Your task to perform on an android device: turn on the 12-hour format for clock Image 0: 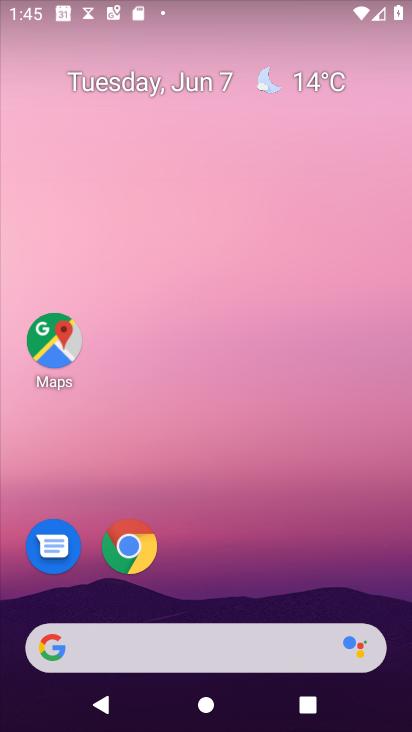
Step 0: drag from (290, 561) to (318, 85)
Your task to perform on an android device: turn on the 12-hour format for clock Image 1: 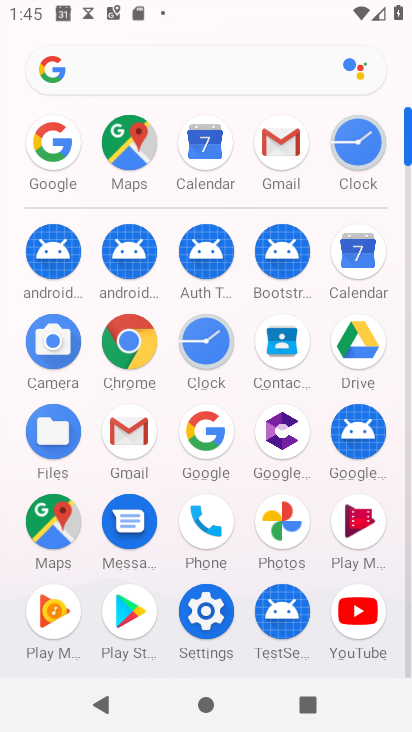
Step 1: click (349, 148)
Your task to perform on an android device: turn on the 12-hour format for clock Image 2: 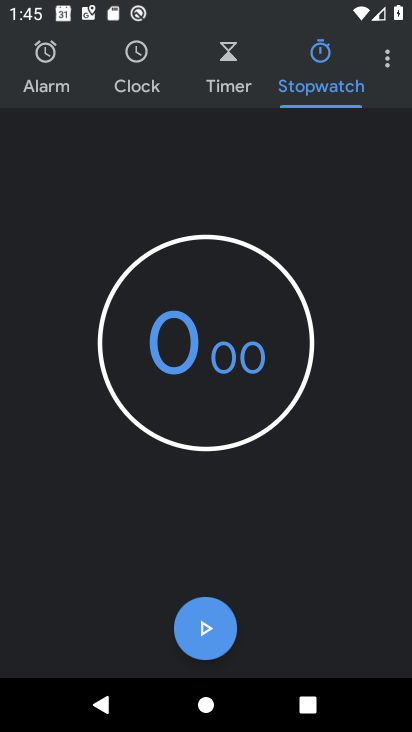
Step 2: click (390, 51)
Your task to perform on an android device: turn on the 12-hour format for clock Image 3: 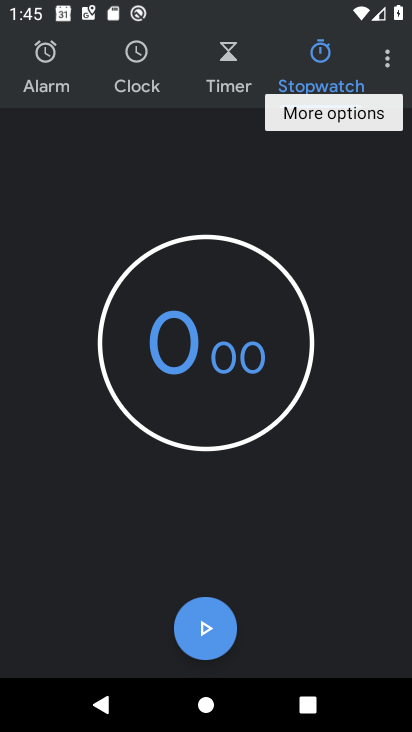
Step 3: click (391, 52)
Your task to perform on an android device: turn on the 12-hour format for clock Image 4: 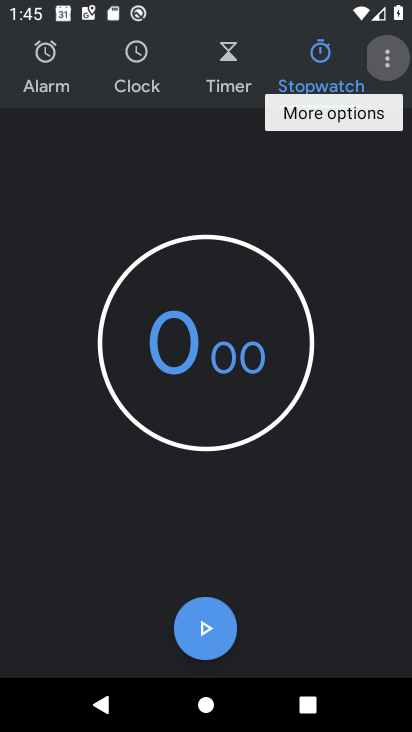
Step 4: click (389, 56)
Your task to perform on an android device: turn on the 12-hour format for clock Image 5: 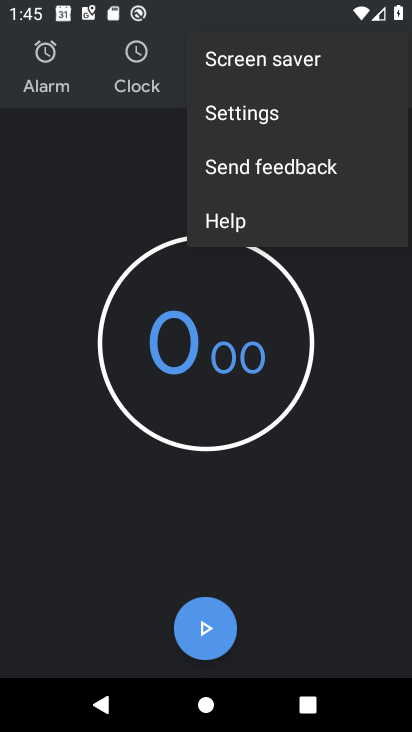
Step 5: click (261, 116)
Your task to perform on an android device: turn on the 12-hour format for clock Image 6: 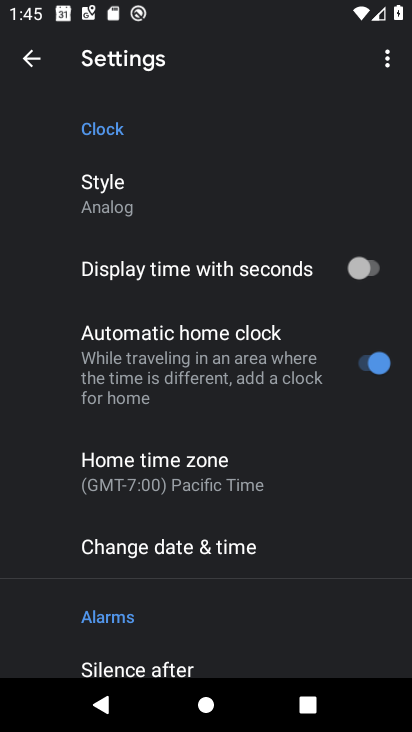
Step 6: drag from (298, 561) to (293, 487)
Your task to perform on an android device: turn on the 12-hour format for clock Image 7: 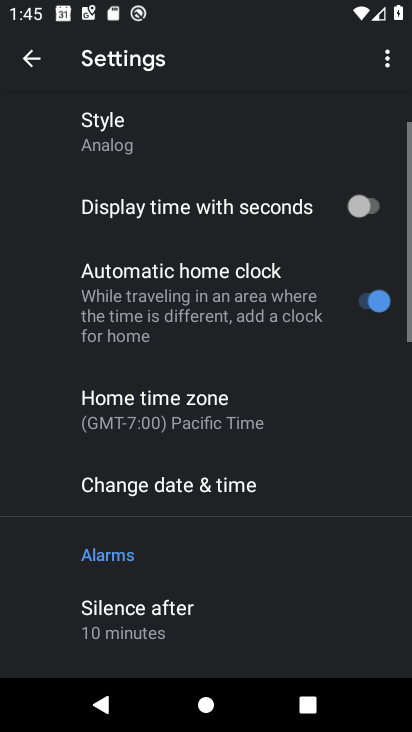
Step 7: click (256, 490)
Your task to perform on an android device: turn on the 12-hour format for clock Image 8: 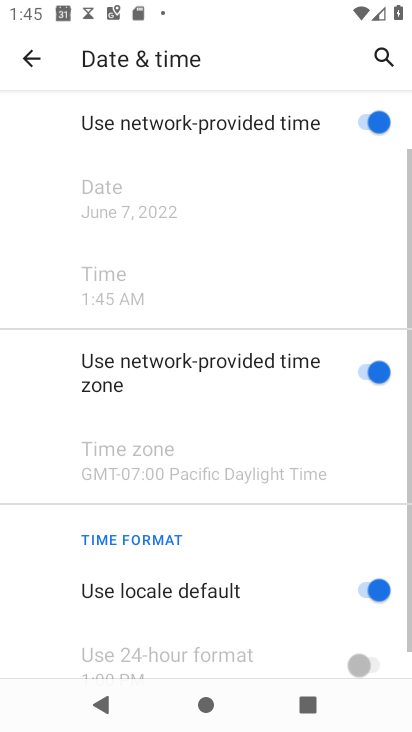
Step 8: task complete